Your task to perform on an android device: turn on sleep mode Image 0: 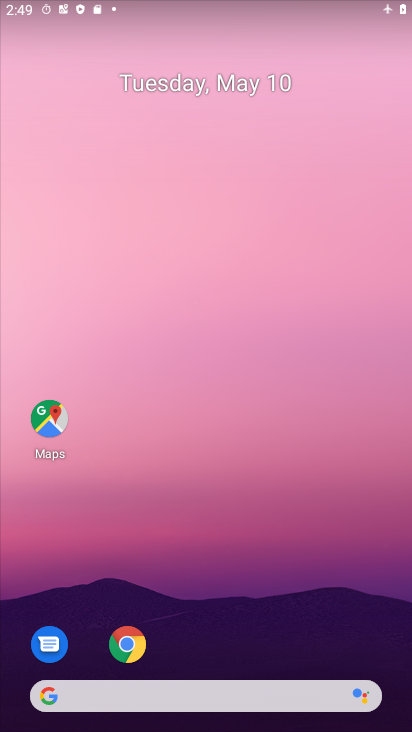
Step 0: drag from (235, 648) to (283, 204)
Your task to perform on an android device: turn on sleep mode Image 1: 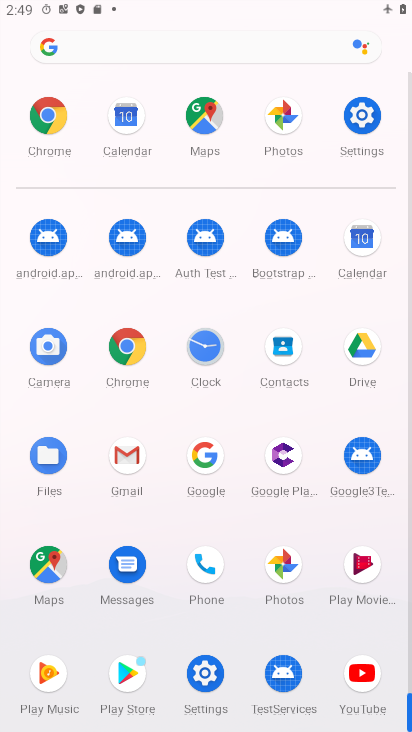
Step 1: click (359, 124)
Your task to perform on an android device: turn on sleep mode Image 2: 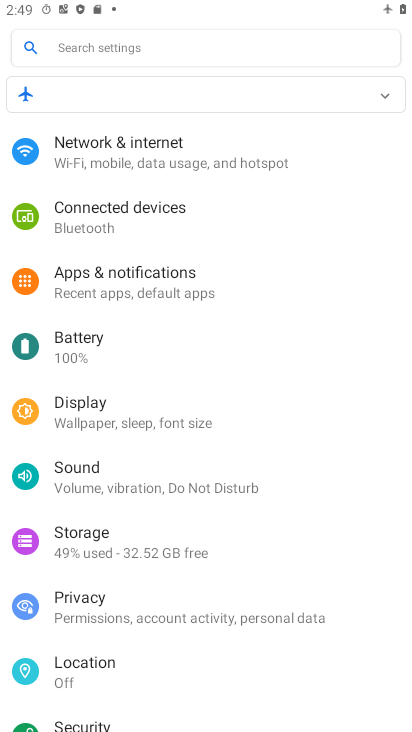
Step 2: task complete